Your task to perform on an android device: Show the shopping cart on amazon. Search for "bose soundlink" on amazon, select the first entry, add it to the cart, then select checkout. Image 0: 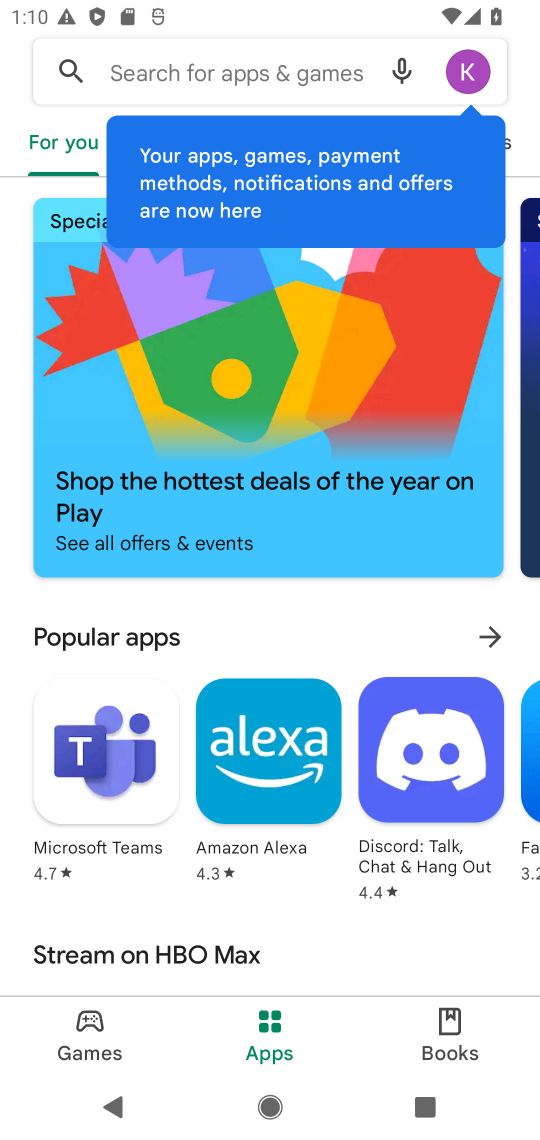
Step 0: press home button
Your task to perform on an android device: Show the shopping cart on amazon. Search for "bose soundlink" on amazon, select the first entry, add it to the cart, then select checkout. Image 1: 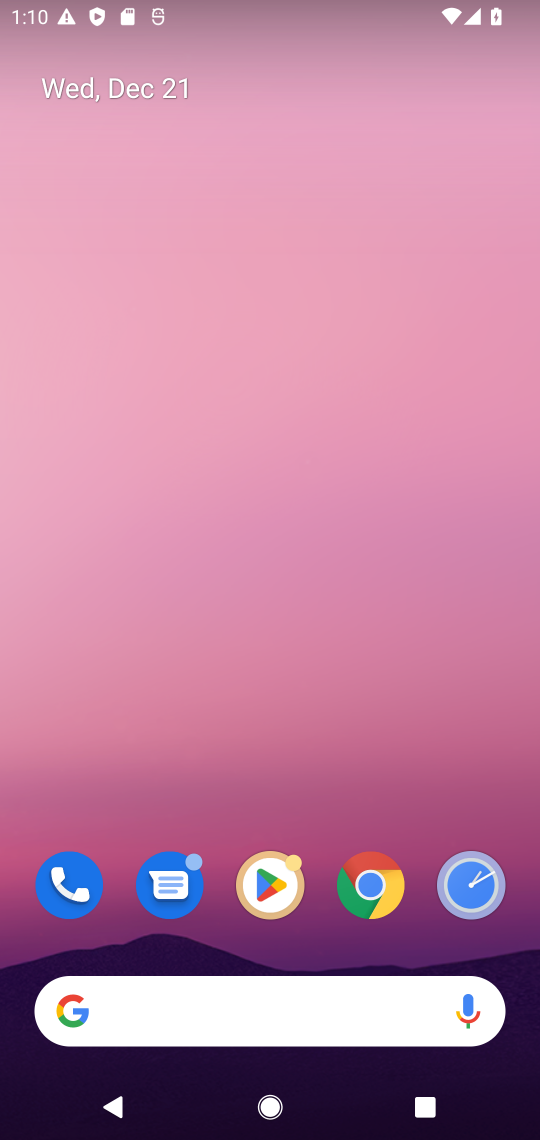
Step 1: drag from (260, 1017) to (221, 308)
Your task to perform on an android device: Show the shopping cart on amazon. Search for "bose soundlink" on amazon, select the first entry, add it to the cart, then select checkout. Image 2: 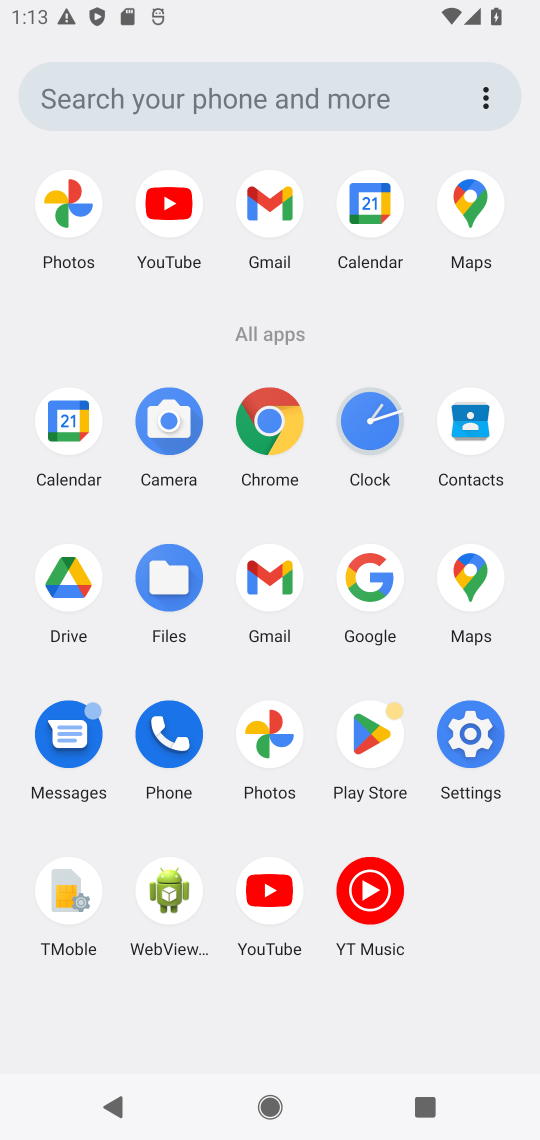
Step 2: press home button
Your task to perform on an android device: Show the shopping cart on amazon. Search for "bose soundlink" on amazon, select the first entry, add it to the cart, then select checkout. Image 3: 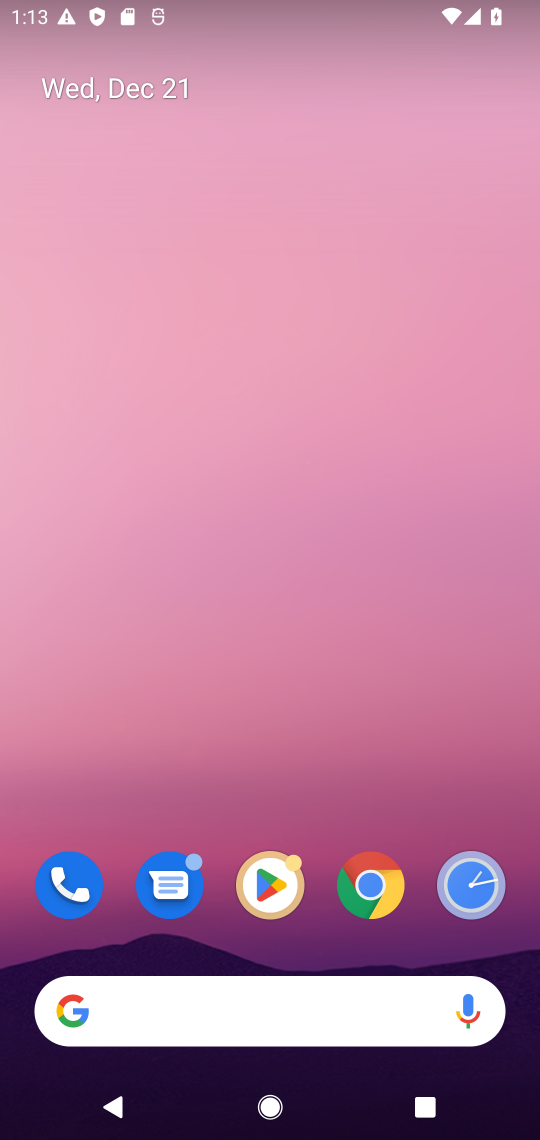
Step 3: drag from (218, 941) to (268, 146)
Your task to perform on an android device: Show the shopping cart on amazon. Search for "bose soundlink" on amazon, select the first entry, add it to the cart, then select checkout. Image 4: 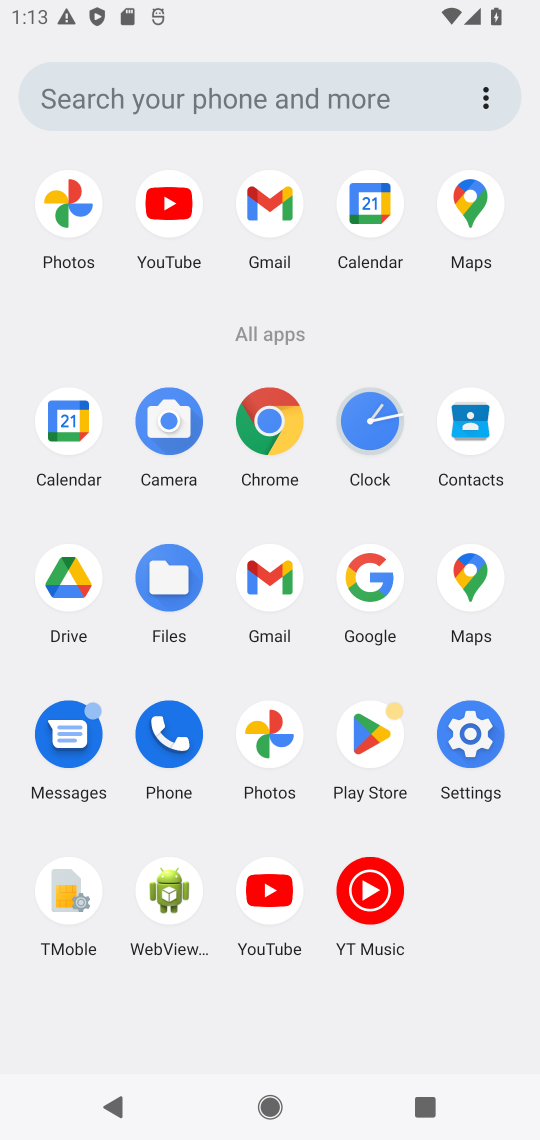
Step 4: click (364, 587)
Your task to perform on an android device: Show the shopping cart on amazon. Search for "bose soundlink" on amazon, select the first entry, add it to the cart, then select checkout. Image 5: 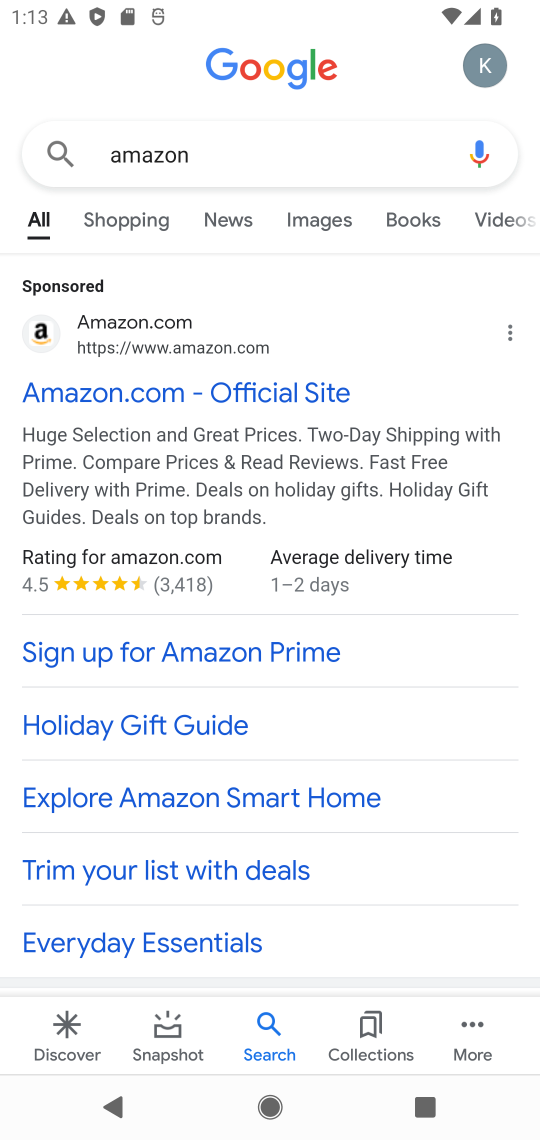
Step 5: click (164, 399)
Your task to perform on an android device: Show the shopping cart on amazon. Search for "bose soundlink" on amazon, select the first entry, add it to the cart, then select checkout. Image 6: 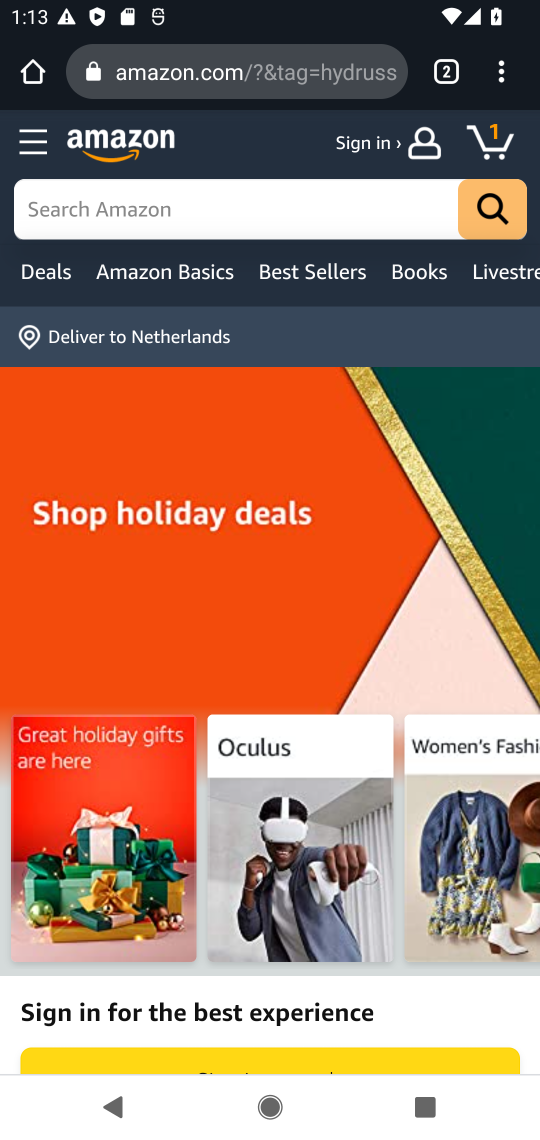
Step 6: click (491, 138)
Your task to perform on an android device: Show the shopping cart on amazon. Search for "bose soundlink" on amazon, select the first entry, add it to the cart, then select checkout. Image 7: 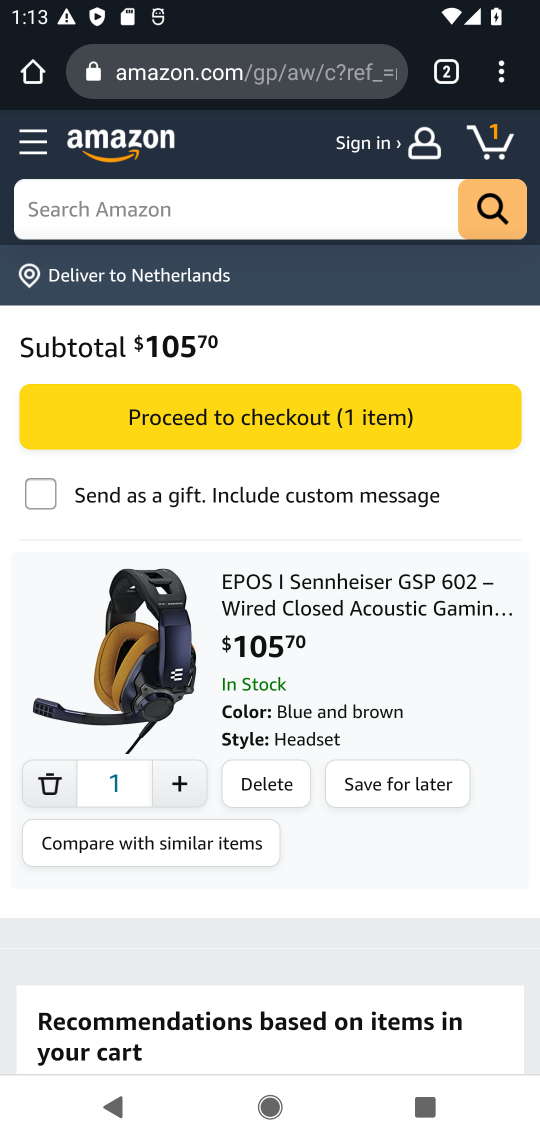
Step 7: click (235, 221)
Your task to perform on an android device: Show the shopping cart on amazon. Search for "bose soundlink" on amazon, select the first entry, add it to the cart, then select checkout. Image 8: 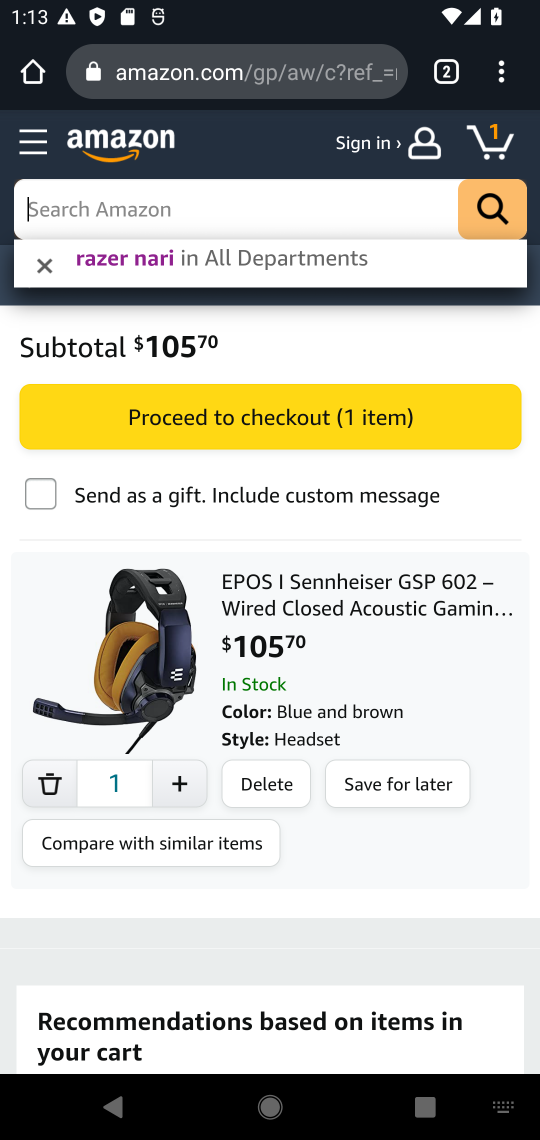
Step 8: type "bose soundlink"
Your task to perform on an android device: Show the shopping cart on amazon. Search for "bose soundlink" on amazon, select the first entry, add it to the cart, then select checkout. Image 9: 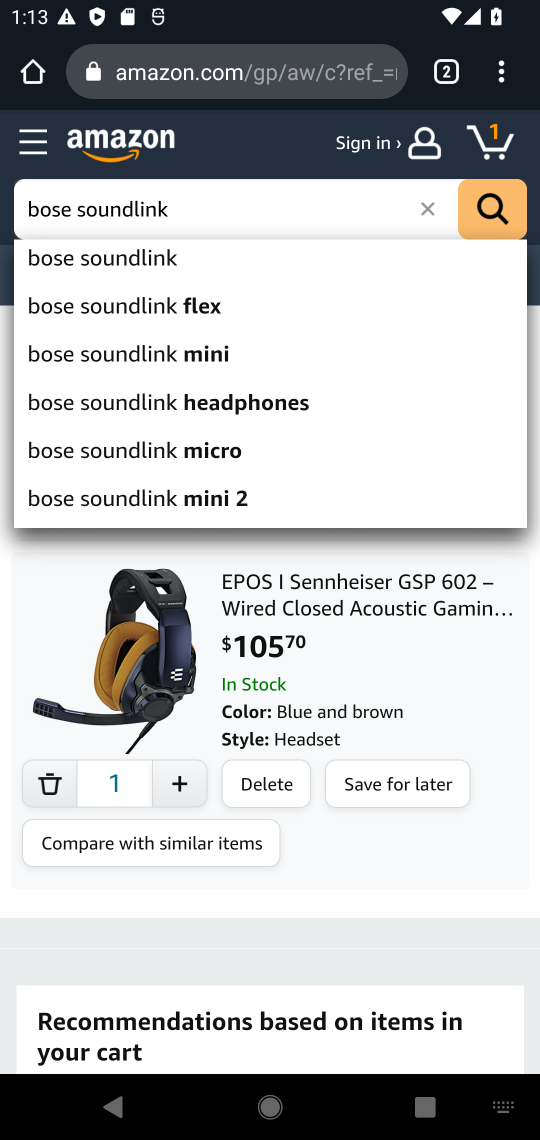
Step 9: click (59, 266)
Your task to perform on an android device: Show the shopping cart on amazon. Search for "bose soundlink" on amazon, select the first entry, add it to the cart, then select checkout. Image 10: 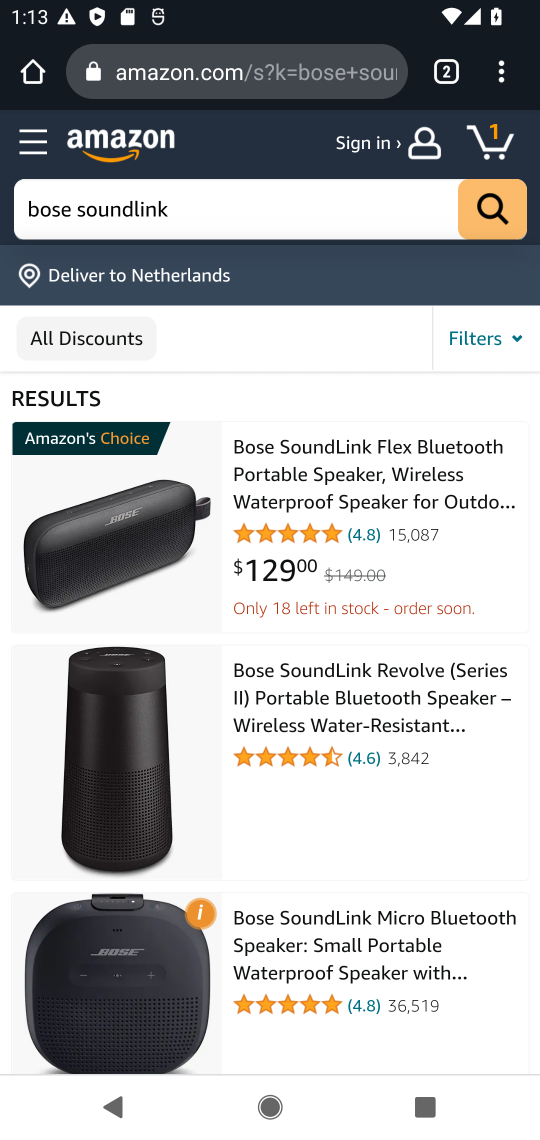
Step 10: click (323, 494)
Your task to perform on an android device: Show the shopping cart on amazon. Search for "bose soundlink" on amazon, select the first entry, add it to the cart, then select checkout. Image 11: 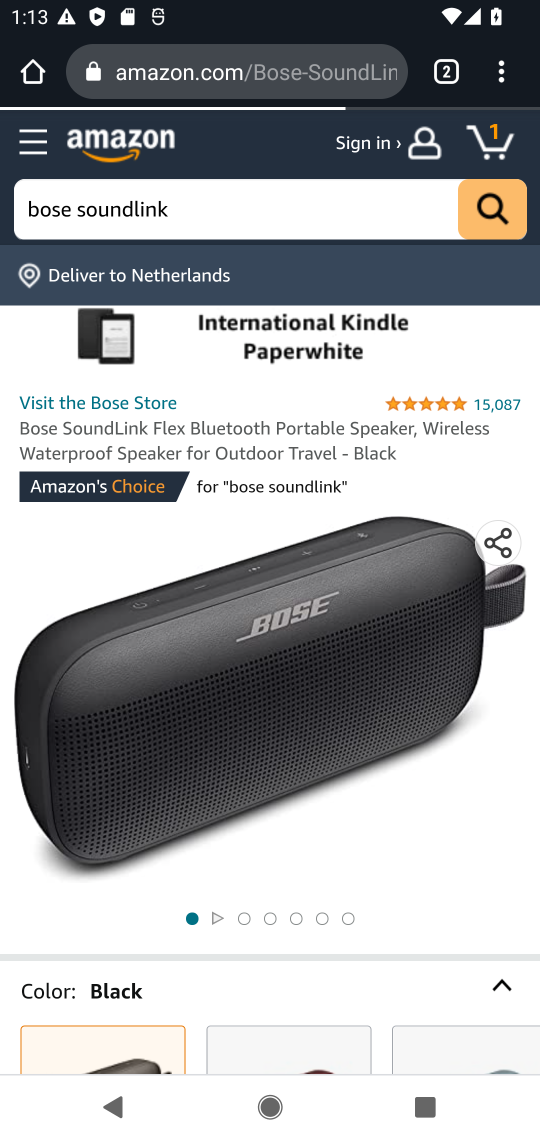
Step 11: task complete